Your task to perform on an android device: Open Chrome and go to the settings page Image 0: 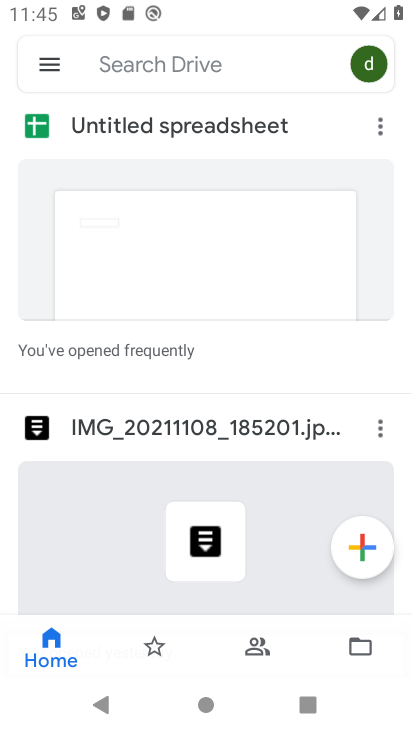
Step 0: press home button
Your task to perform on an android device: Open Chrome and go to the settings page Image 1: 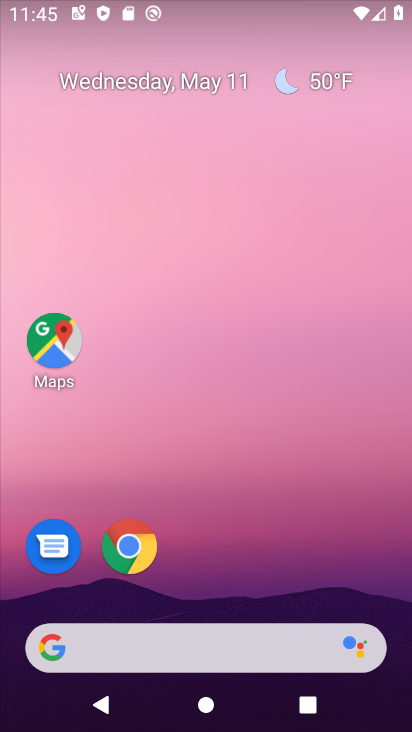
Step 1: click (124, 537)
Your task to perform on an android device: Open Chrome and go to the settings page Image 2: 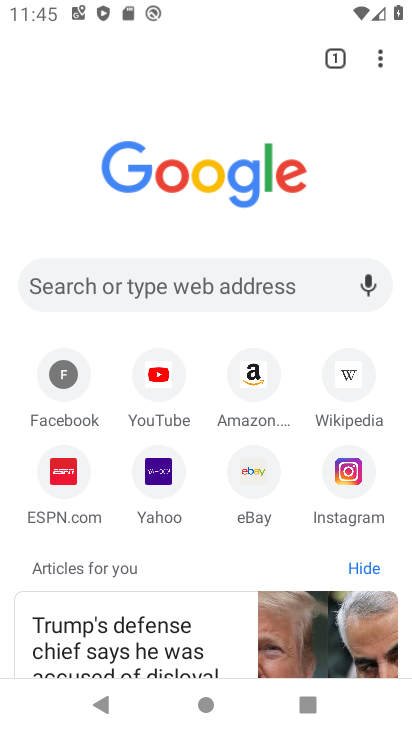
Step 2: click (369, 53)
Your task to perform on an android device: Open Chrome and go to the settings page Image 3: 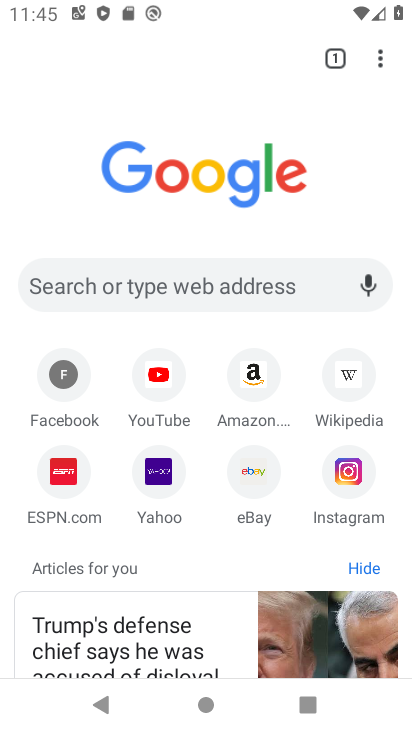
Step 3: click (369, 55)
Your task to perform on an android device: Open Chrome and go to the settings page Image 4: 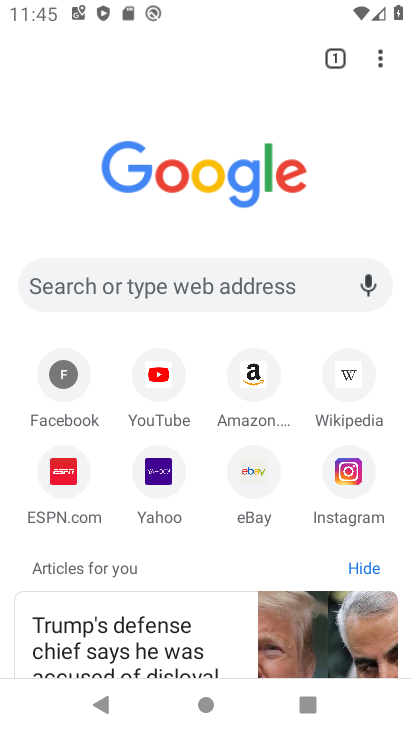
Step 4: click (371, 60)
Your task to perform on an android device: Open Chrome and go to the settings page Image 5: 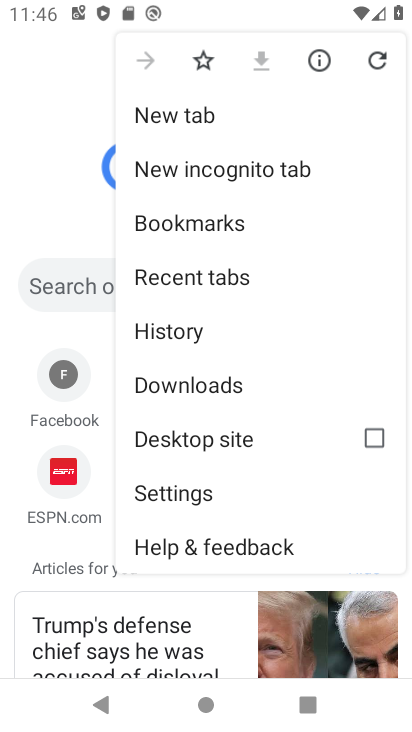
Step 5: click (189, 472)
Your task to perform on an android device: Open Chrome and go to the settings page Image 6: 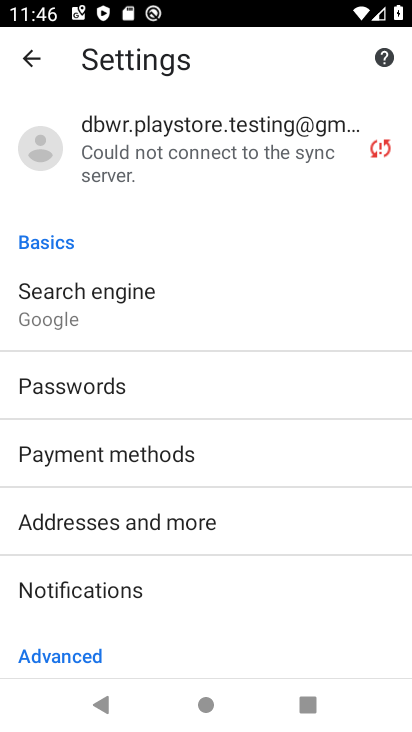
Step 6: task complete